Your task to perform on an android device: turn pop-ups off in chrome Image 0: 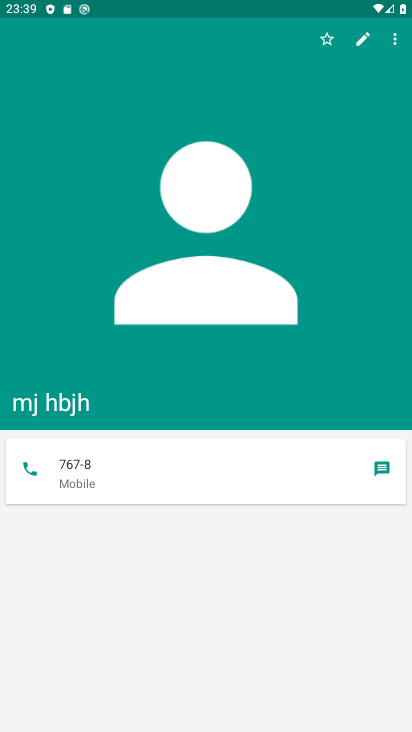
Step 0: press home button
Your task to perform on an android device: turn pop-ups off in chrome Image 1: 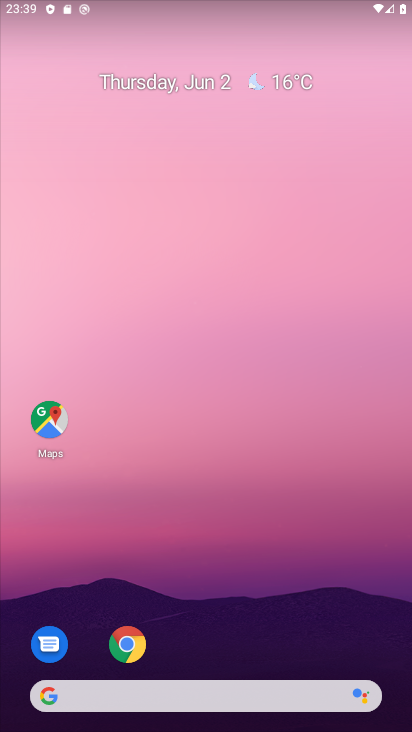
Step 1: click (118, 647)
Your task to perform on an android device: turn pop-ups off in chrome Image 2: 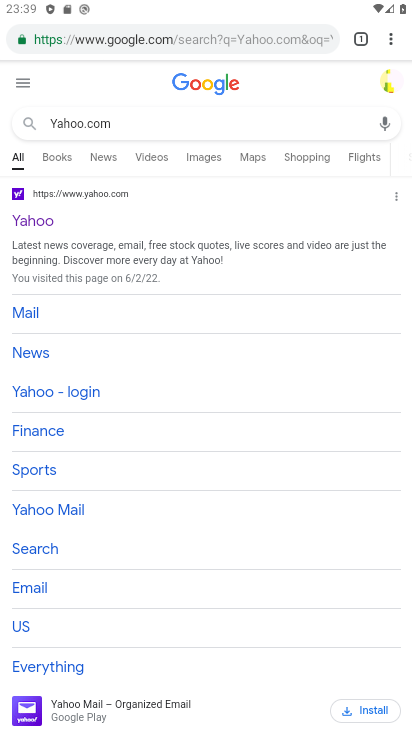
Step 2: click (392, 39)
Your task to perform on an android device: turn pop-ups off in chrome Image 3: 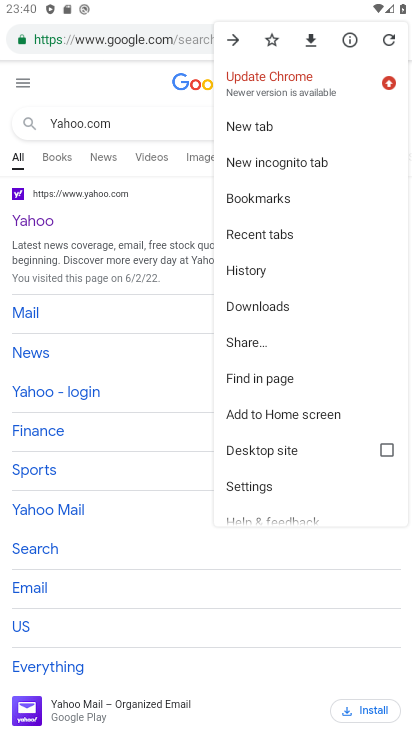
Step 3: click (269, 488)
Your task to perform on an android device: turn pop-ups off in chrome Image 4: 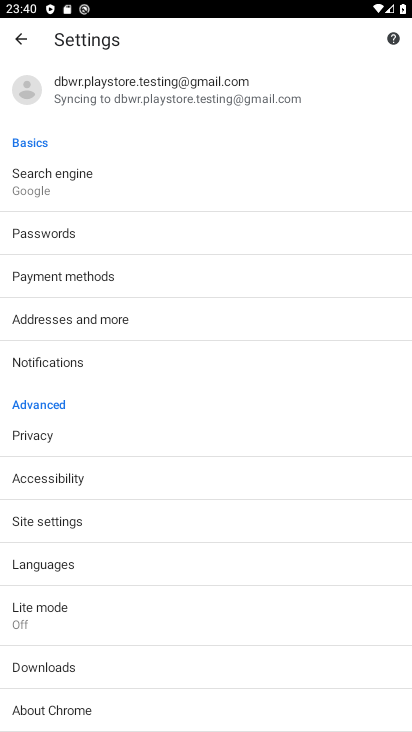
Step 4: drag from (93, 620) to (129, 189)
Your task to perform on an android device: turn pop-ups off in chrome Image 5: 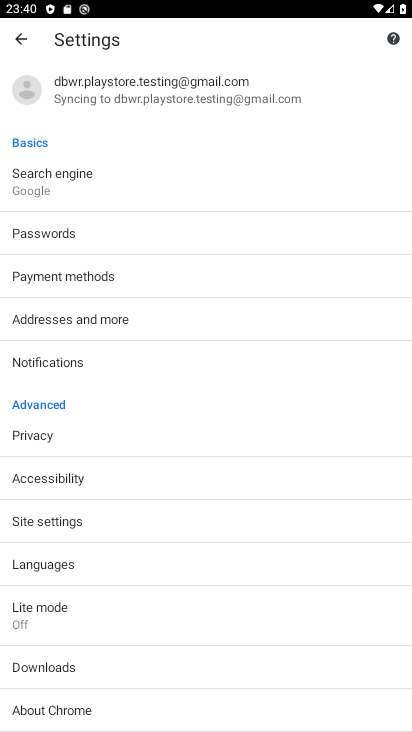
Step 5: click (57, 526)
Your task to perform on an android device: turn pop-ups off in chrome Image 6: 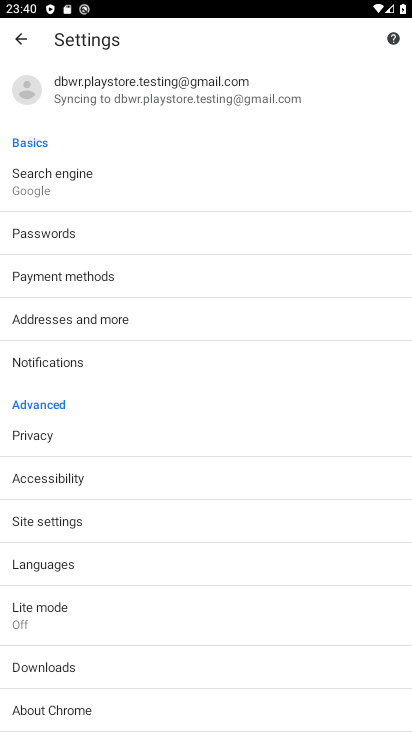
Step 6: click (177, 518)
Your task to perform on an android device: turn pop-ups off in chrome Image 7: 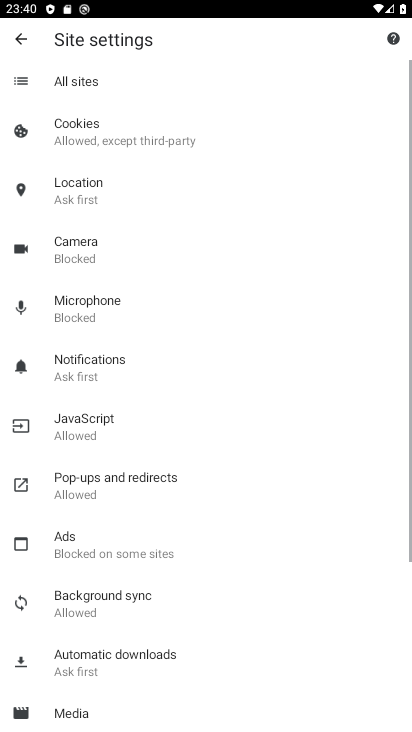
Step 7: click (18, 520)
Your task to perform on an android device: turn pop-ups off in chrome Image 8: 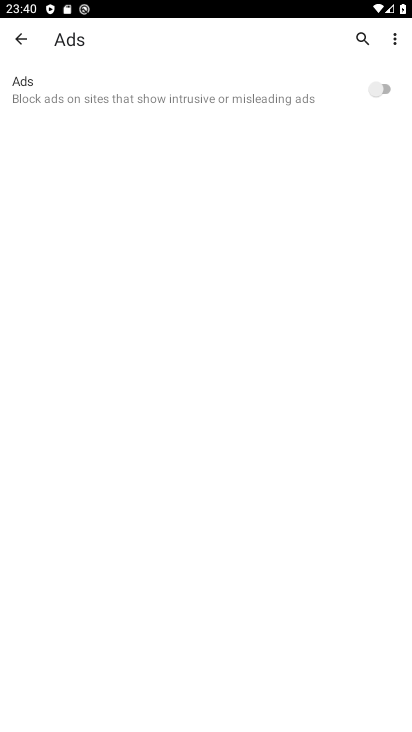
Step 8: click (17, 43)
Your task to perform on an android device: turn pop-ups off in chrome Image 9: 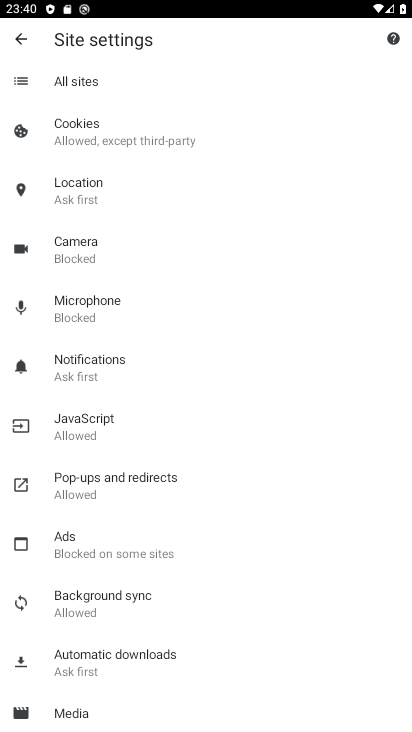
Step 9: click (95, 491)
Your task to perform on an android device: turn pop-ups off in chrome Image 10: 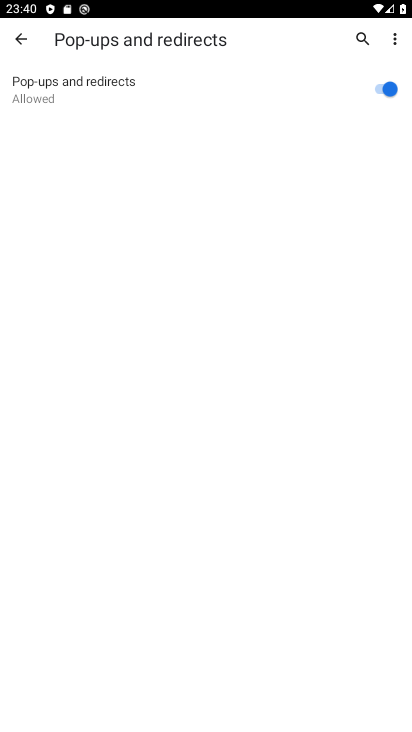
Step 10: click (373, 87)
Your task to perform on an android device: turn pop-ups off in chrome Image 11: 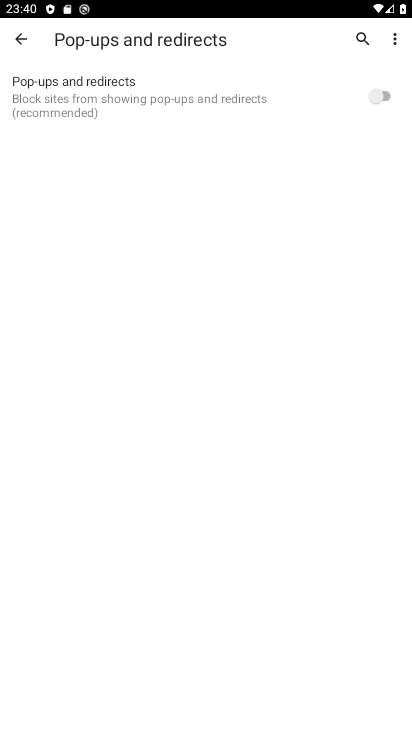
Step 11: task complete